Your task to perform on an android device: Go to accessibility settings Image 0: 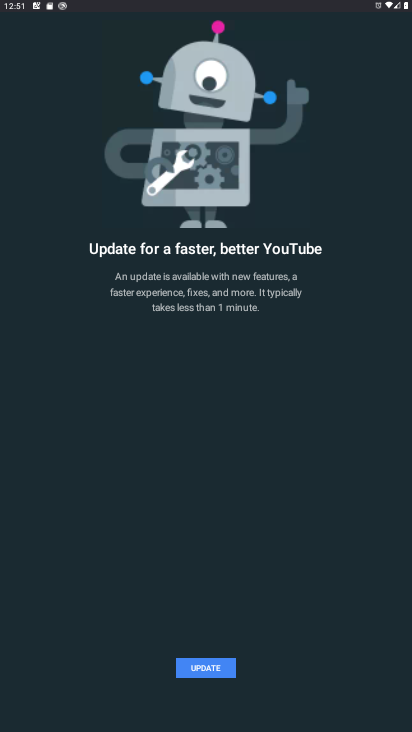
Step 0: press home button
Your task to perform on an android device: Go to accessibility settings Image 1: 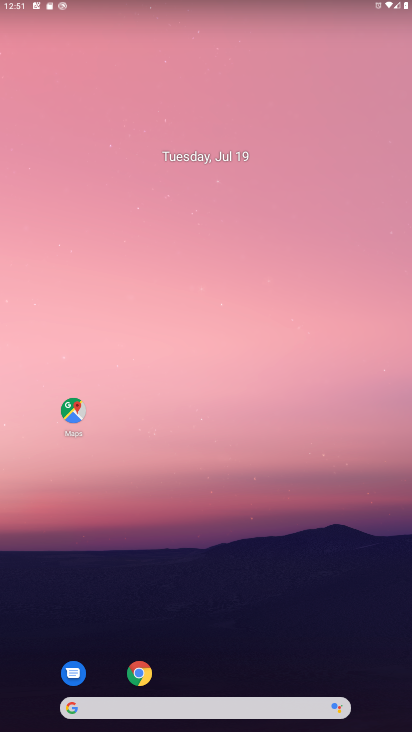
Step 1: drag from (212, 673) to (182, 164)
Your task to perform on an android device: Go to accessibility settings Image 2: 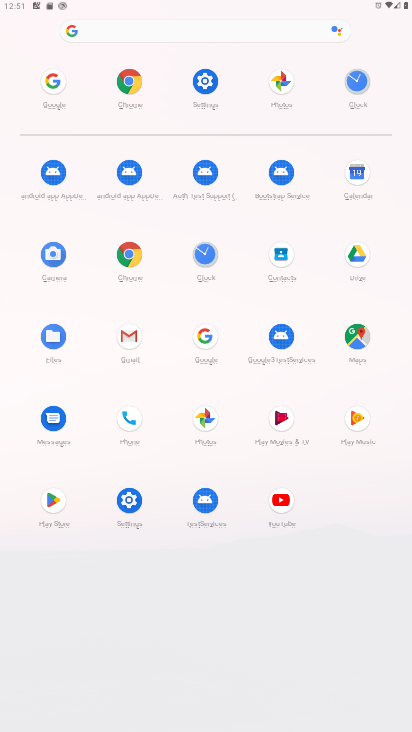
Step 2: click (184, 98)
Your task to perform on an android device: Go to accessibility settings Image 3: 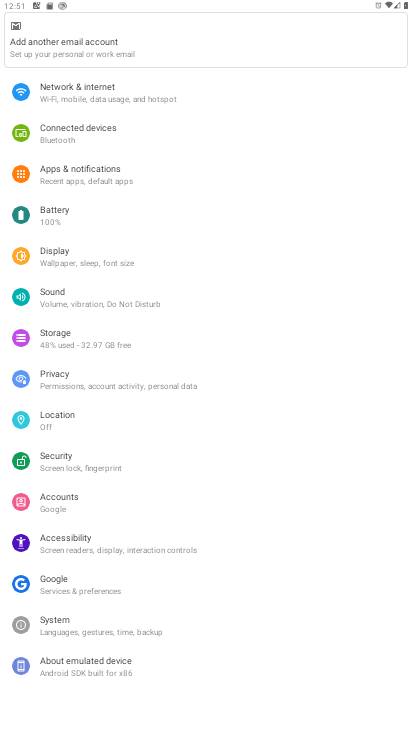
Step 3: click (95, 546)
Your task to perform on an android device: Go to accessibility settings Image 4: 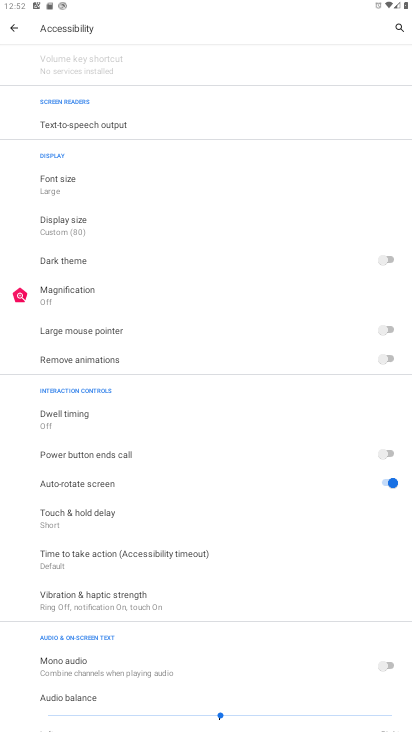
Step 4: task complete